Your task to perform on an android device: delete a single message in the gmail app Image 0: 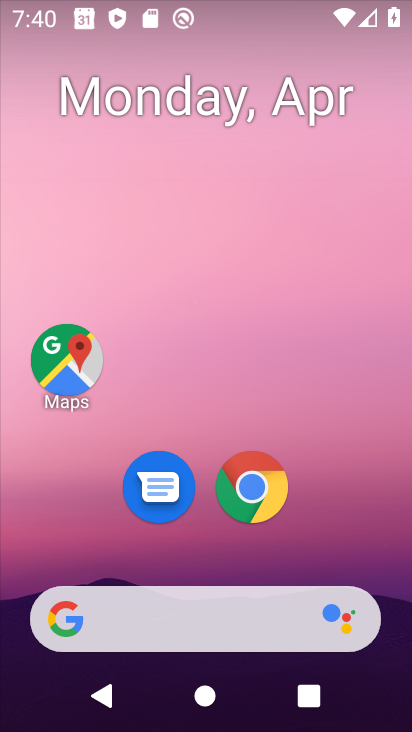
Step 0: drag from (337, 530) to (337, 54)
Your task to perform on an android device: delete a single message in the gmail app Image 1: 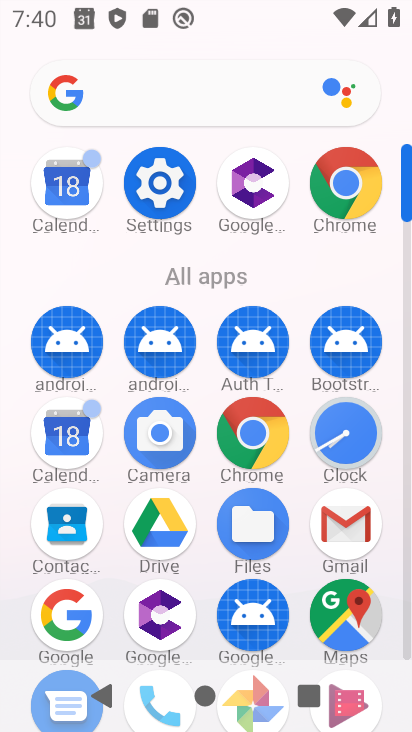
Step 1: click (337, 535)
Your task to perform on an android device: delete a single message in the gmail app Image 2: 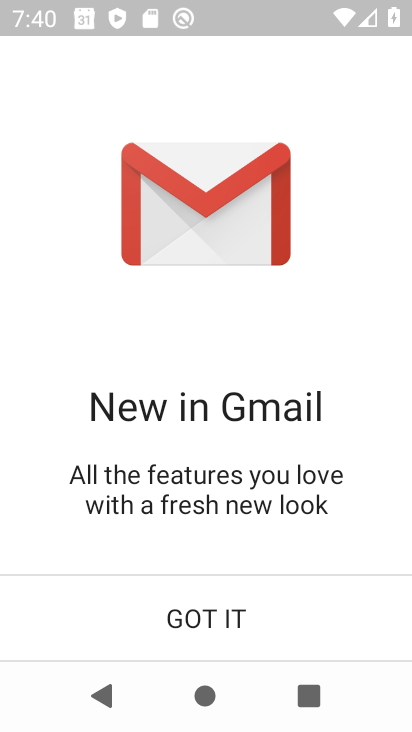
Step 2: click (244, 622)
Your task to perform on an android device: delete a single message in the gmail app Image 3: 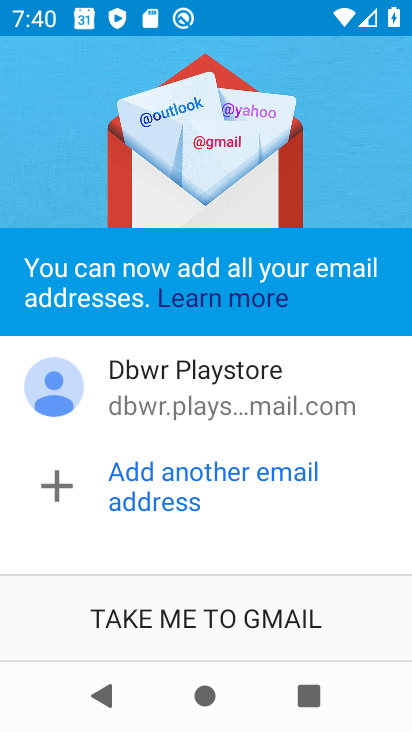
Step 3: click (245, 622)
Your task to perform on an android device: delete a single message in the gmail app Image 4: 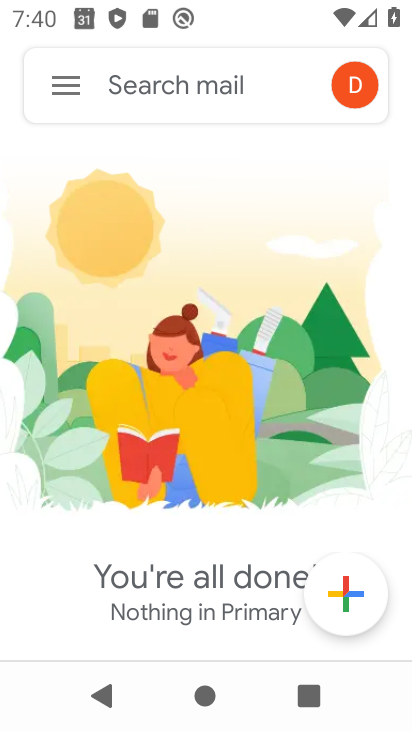
Step 4: click (66, 86)
Your task to perform on an android device: delete a single message in the gmail app Image 5: 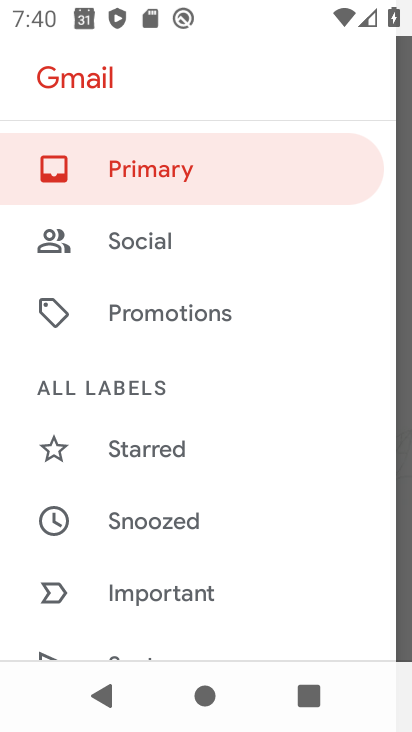
Step 5: drag from (312, 520) to (316, 132)
Your task to perform on an android device: delete a single message in the gmail app Image 6: 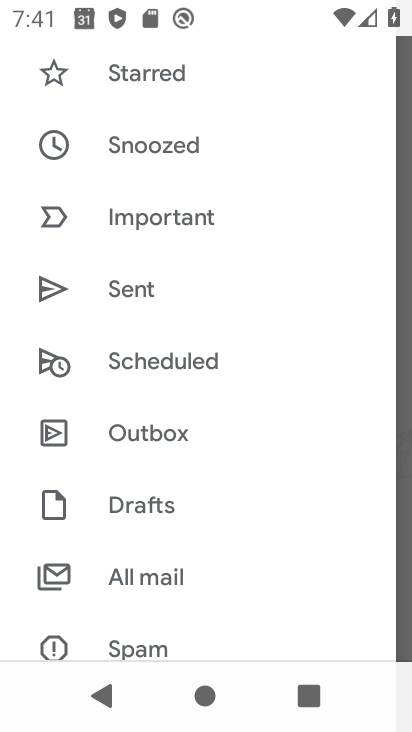
Step 6: drag from (328, 550) to (320, 195)
Your task to perform on an android device: delete a single message in the gmail app Image 7: 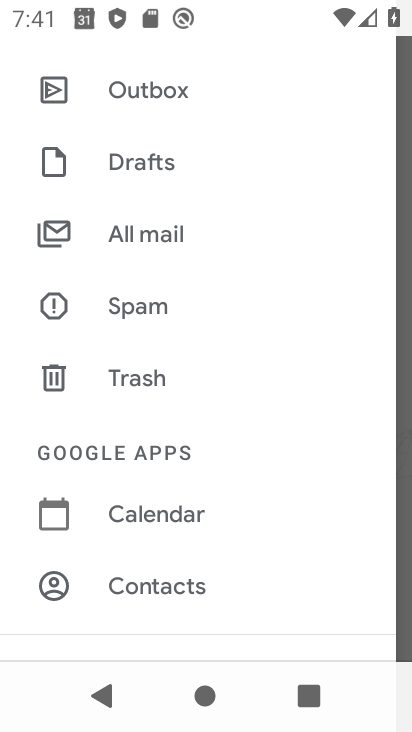
Step 7: drag from (290, 210) to (312, 537)
Your task to perform on an android device: delete a single message in the gmail app Image 8: 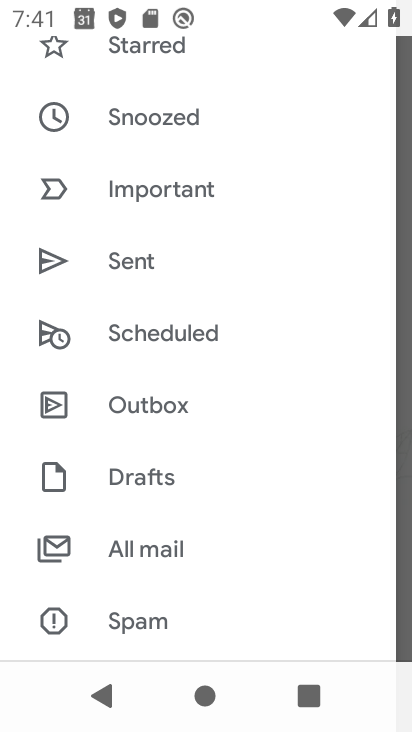
Step 8: drag from (328, 222) to (317, 489)
Your task to perform on an android device: delete a single message in the gmail app Image 9: 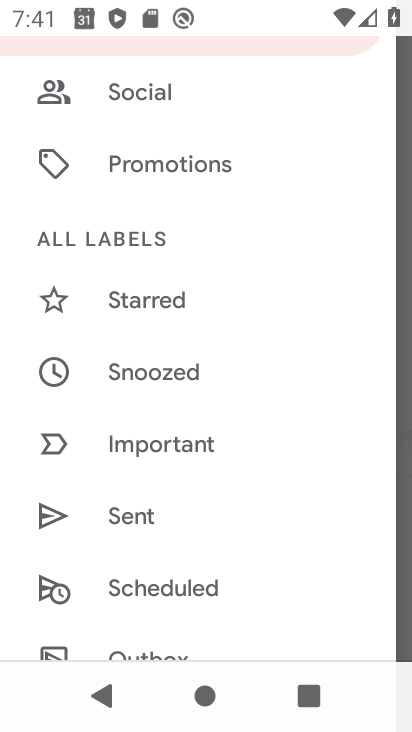
Step 9: drag from (334, 328) to (333, 393)
Your task to perform on an android device: delete a single message in the gmail app Image 10: 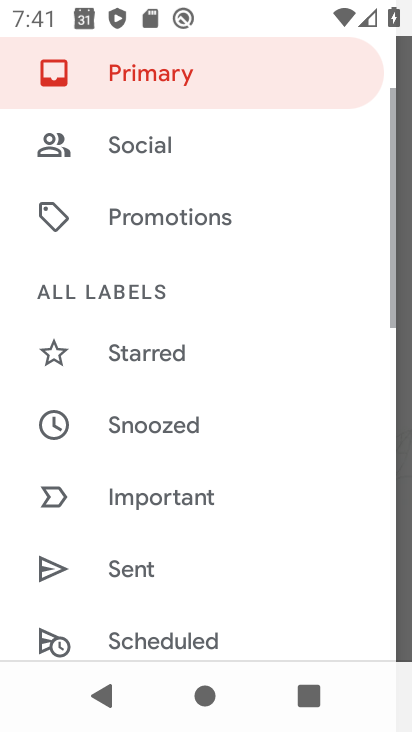
Step 10: drag from (350, 289) to (348, 465)
Your task to perform on an android device: delete a single message in the gmail app Image 11: 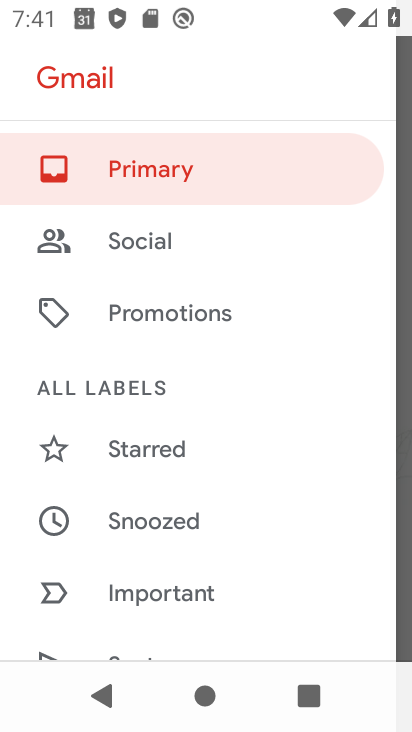
Step 11: click (242, 167)
Your task to perform on an android device: delete a single message in the gmail app Image 12: 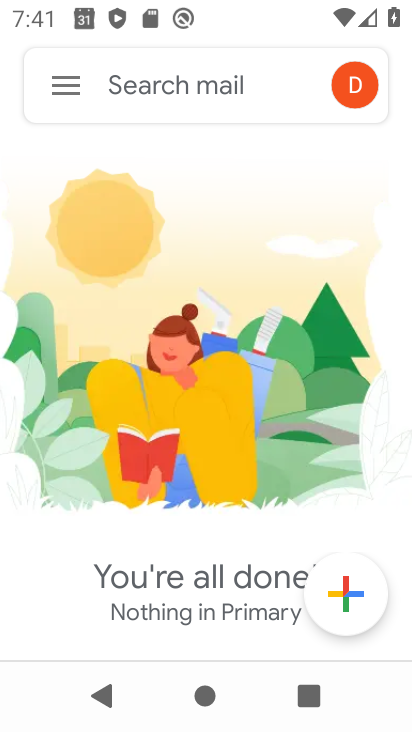
Step 12: task complete